Your task to perform on an android device: Open Google Maps Image 0: 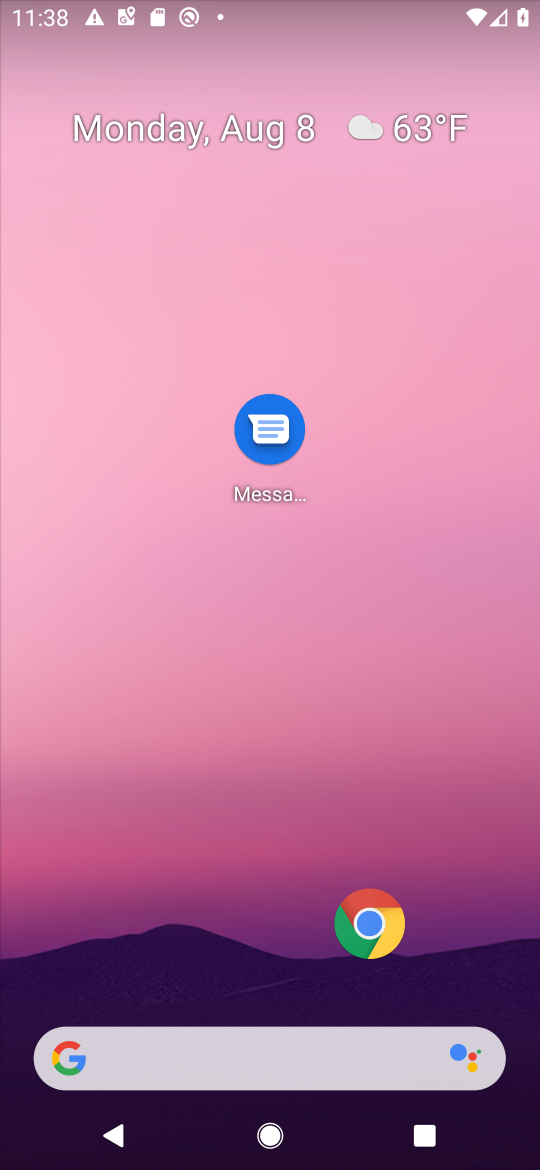
Step 0: drag from (76, 1093) to (161, 190)
Your task to perform on an android device: Open Google Maps Image 1: 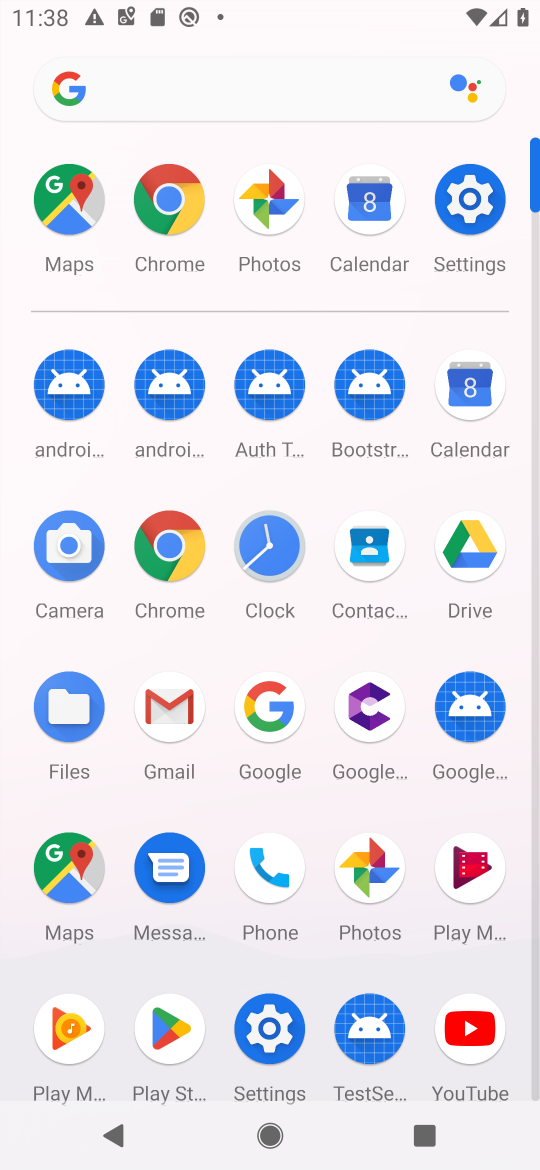
Step 1: click (76, 902)
Your task to perform on an android device: Open Google Maps Image 2: 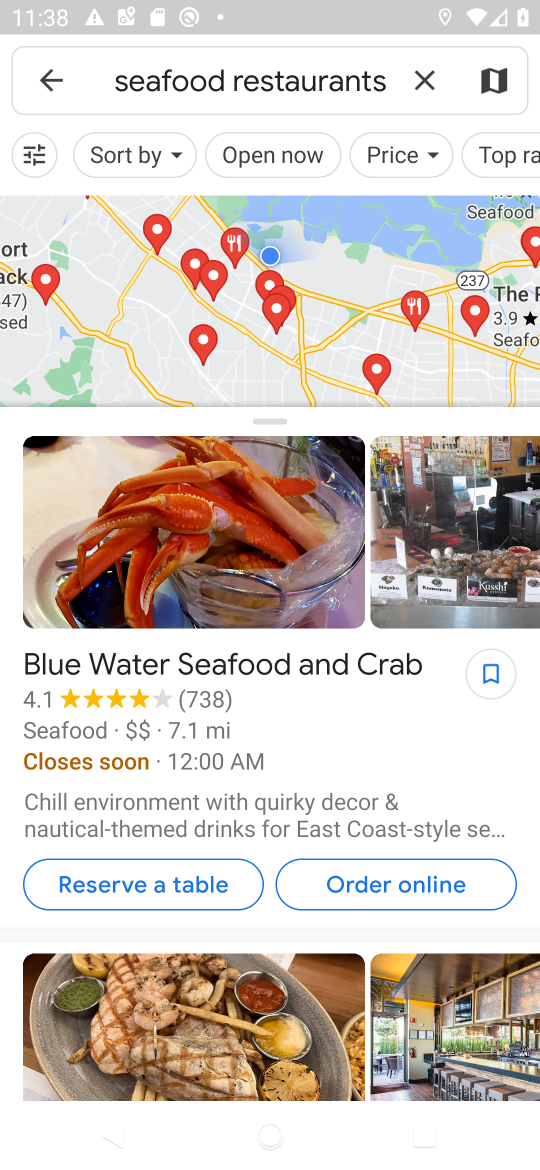
Step 2: click (435, 85)
Your task to perform on an android device: Open Google Maps Image 3: 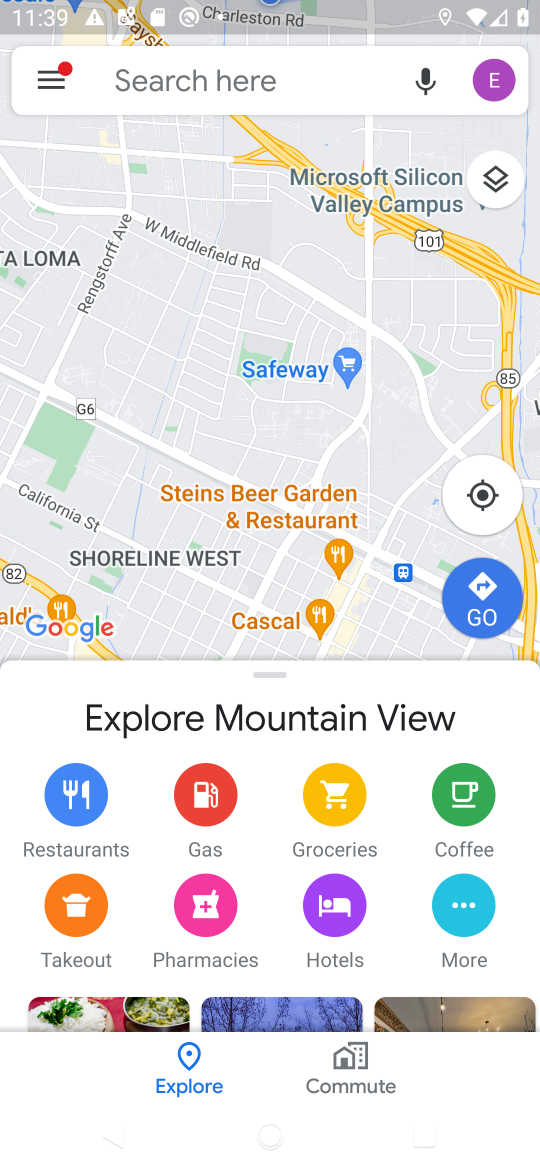
Step 3: task complete